Your task to perform on an android device: Open notification settings Image 0: 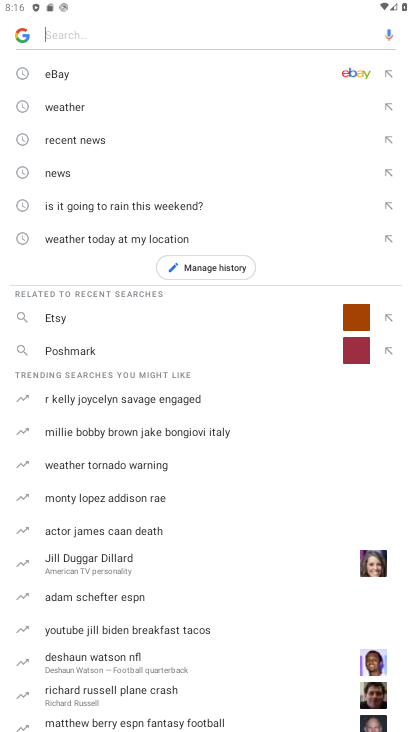
Step 0: drag from (258, 724) to (275, 351)
Your task to perform on an android device: Open notification settings Image 1: 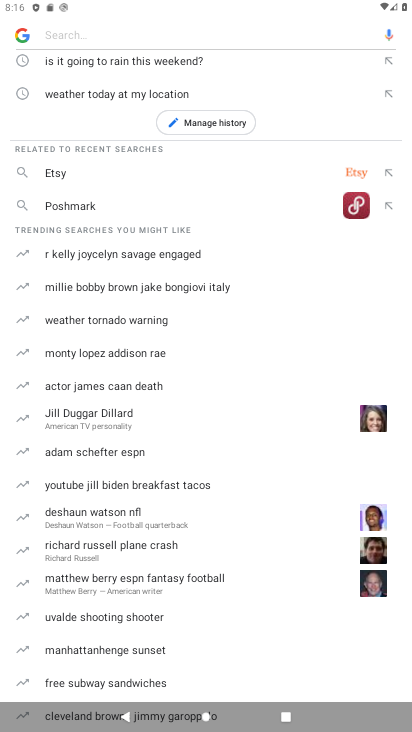
Step 1: press home button
Your task to perform on an android device: Open notification settings Image 2: 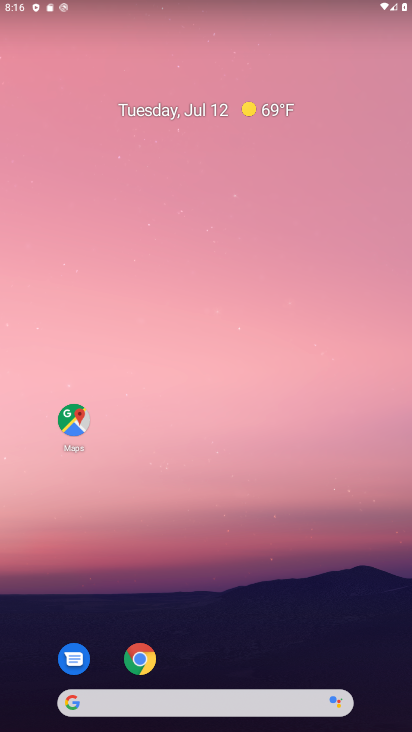
Step 2: drag from (233, 705) to (261, 195)
Your task to perform on an android device: Open notification settings Image 3: 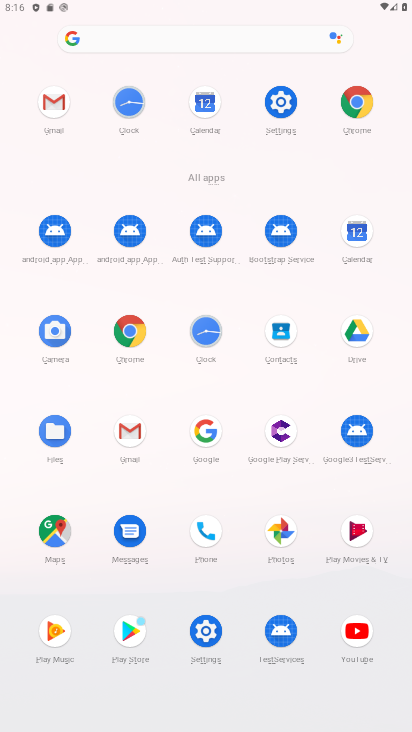
Step 3: click (285, 101)
Your task to perform on an android device: Open notification settings Image 4: 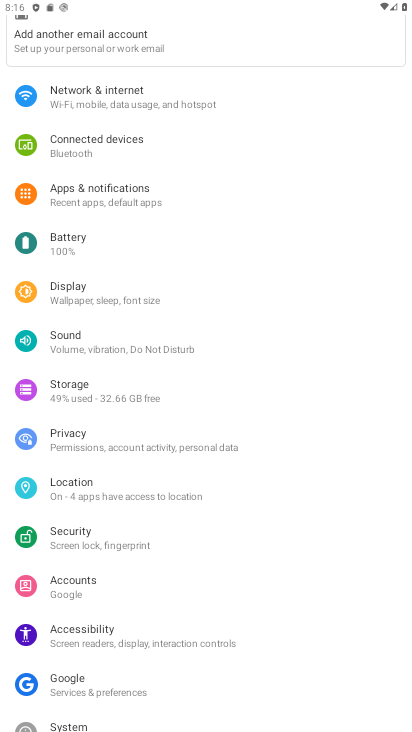
Step 4: click (111, 194)
Your task to perform on an android device: Open notification settings Image 5: 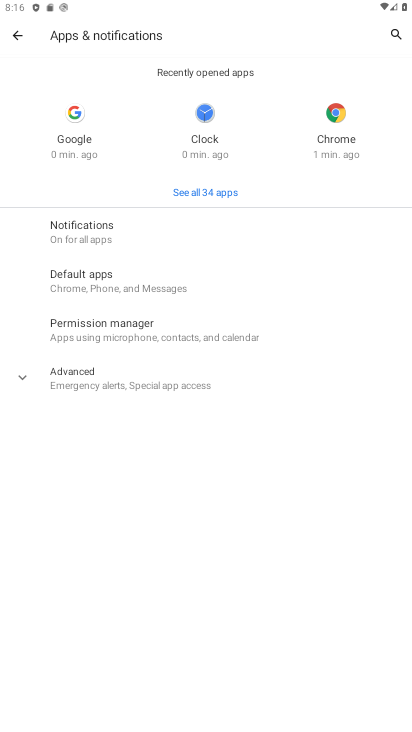
Step 5: click (87, 229)
Your task to perform on an android device: Open notification settings Image 6: 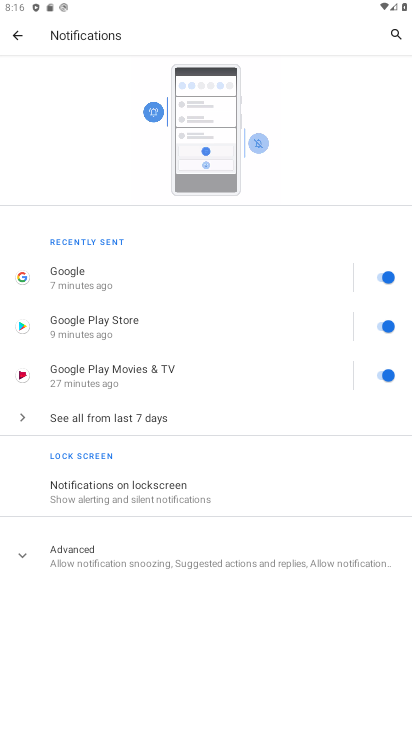
Step 6: task complete